Your task to perform on an android device: When is my next appointment? Image 0: 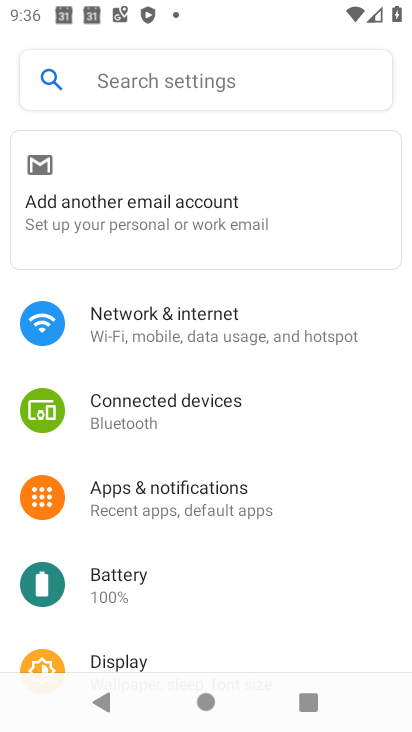
Step 0: press home button
Your task to perform on an android device: When is my next appointment? Image 1: 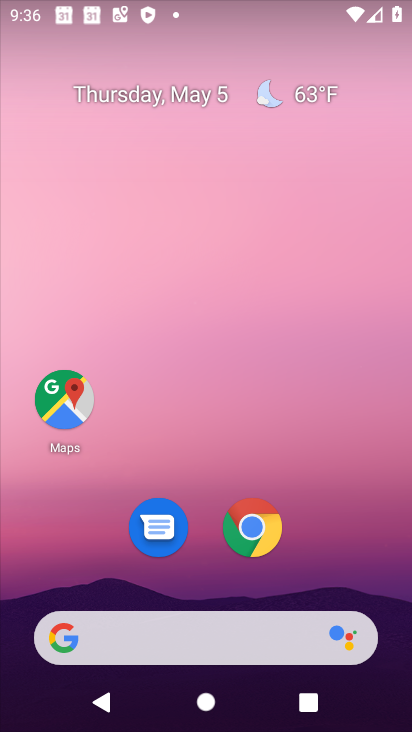
Step 1: drag from (259, 703) to (211, 11)
Your task to perform on an android device: When is my next appointment? Image 2: 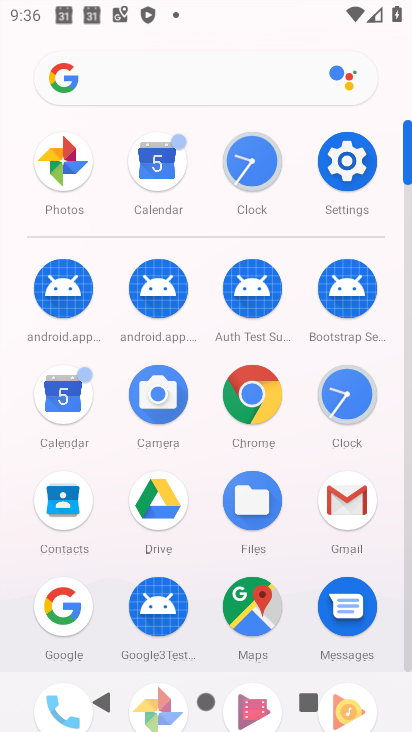
Step 2: click (60, 414)
Your task to perform on an android device: When is my next appointment? Image 3: 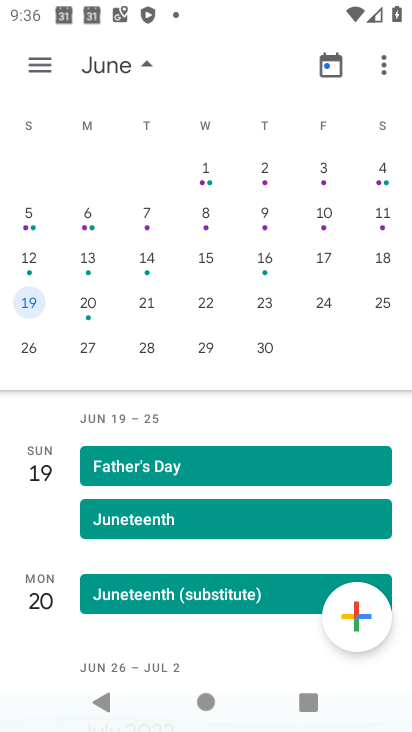
Step 3: click (50, 56)
Your task to perform on an android device: When is my next appointment? Image 4: 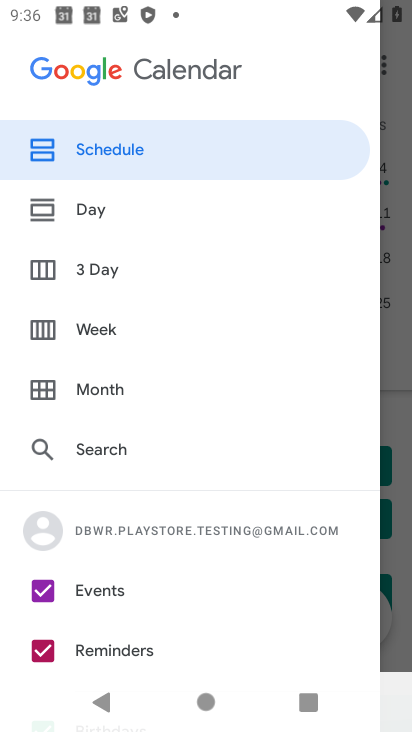
Step 4: drag from (211, 599) to (207, 55)
Your task to perform on an android device: When is my next appointment? Image 5: 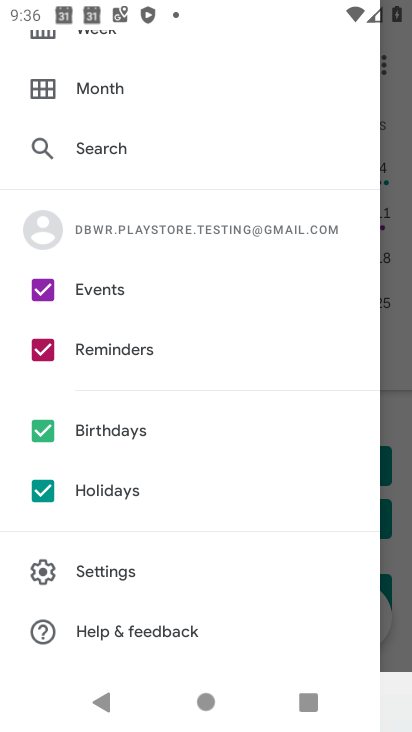
Step 5: click (77, 290)
Your task to perform on an android device: When is my next appointment? Image 6: 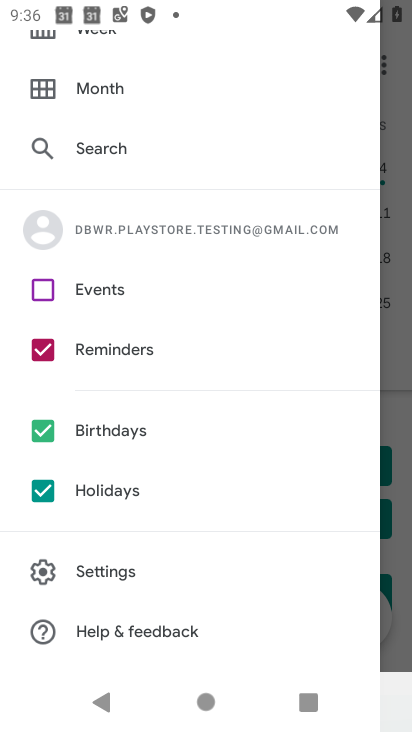
Step 6: click (67, 300)
Your task to perform on an android device: When is my next appointment? Image 7: 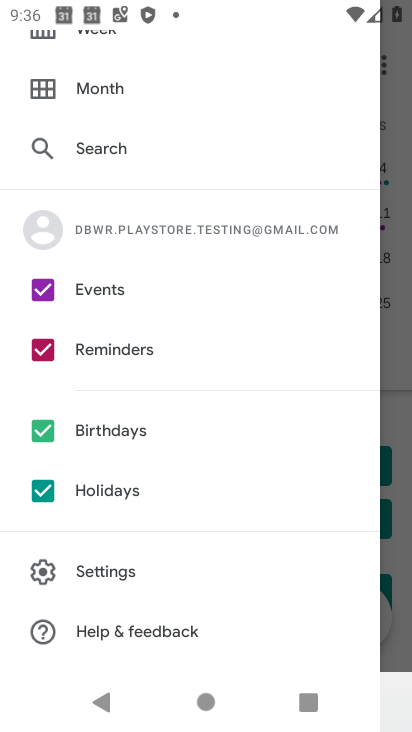
Step 7: drag from (280, 117) to (262, 543)
Your task to perform on an android device: When is my next appointment? Image 8: 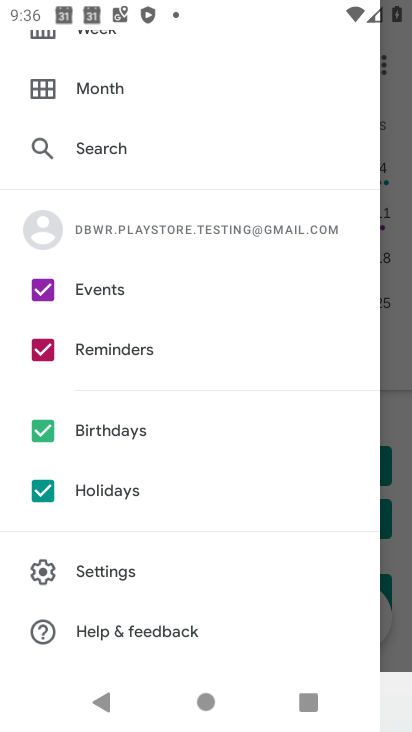
Step 8: click (400, 380)
Your task to perform on an android device: When is my next appointment? Image 9: 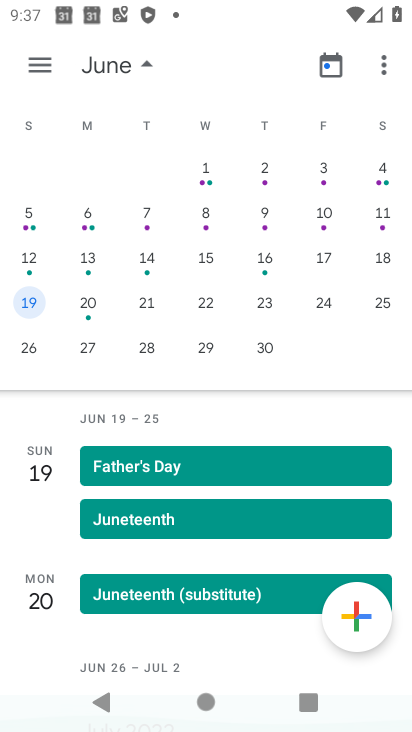
Step 9: task complete